Your task to perform on an android device: Show me the alarms in the clock app Image 0: 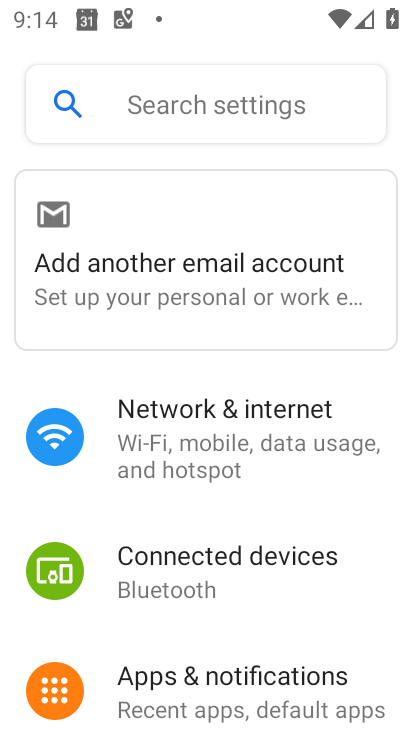
Step 0: press back button
Your task to perform on an android device: Show me the alarms in the clock app Image 1: 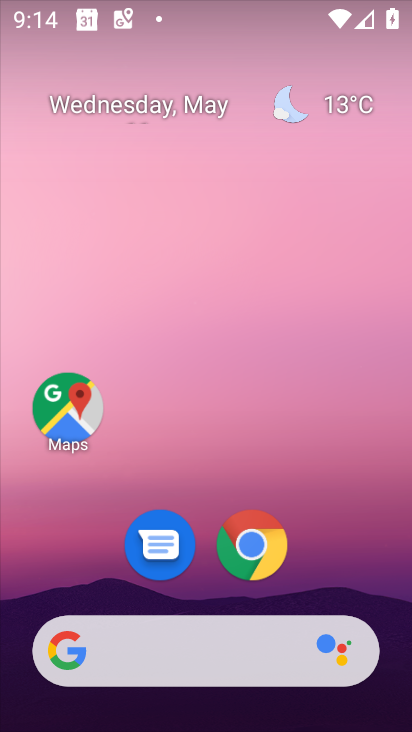
Step 1: drag from (340, 544) to (233, 20)
Your task to perform on an android device: Show me the alarms in the clock app Image 2: 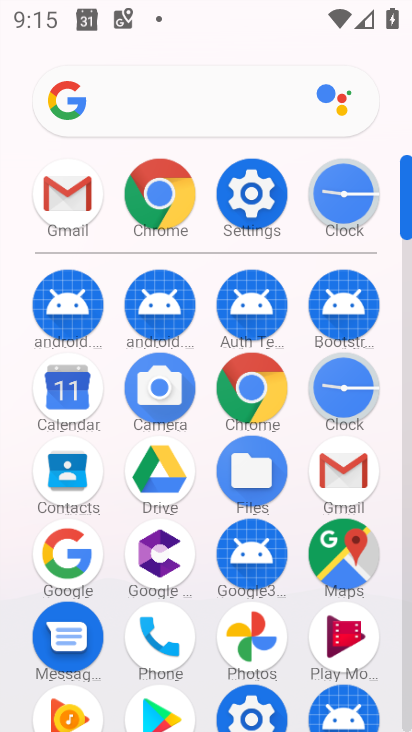
Step 2: click (343, 192)
Your task to perform on an android device: Show me the alarms in the clock app Image 3: 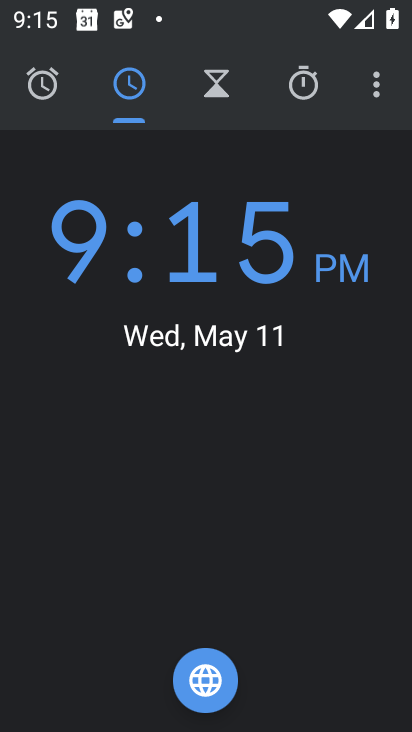
Step 3: click (43, 80)
Your task to perform on an android device: Show me the alarms in the clock app Image 4: 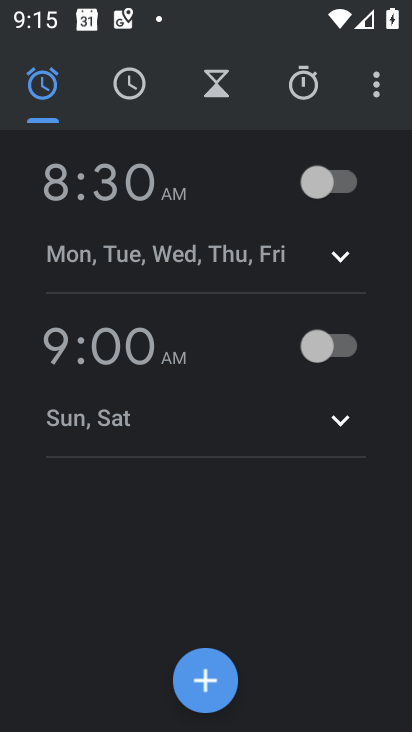
Step 4: click (208, 667)
Your task to perform on an android device: Show me the alarms in the clock app Image 5: 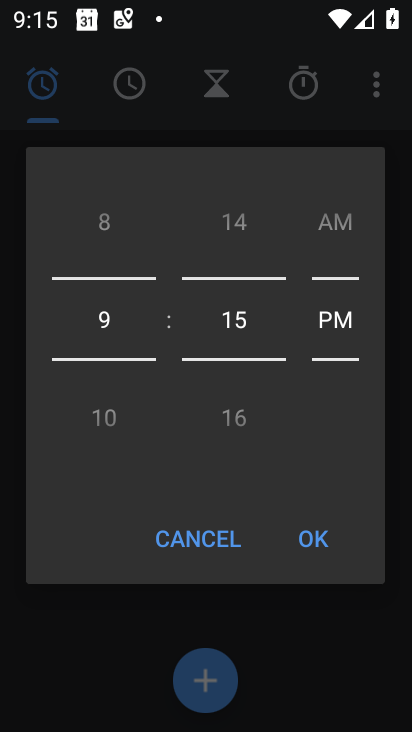
Step 5: drag from (105, 409) to (125, 193)
Your task to perform on an android device: Show me the alarms in the clock app Image 6: 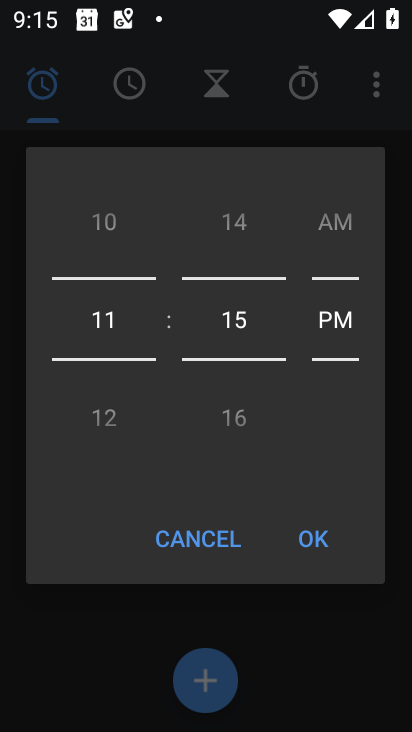
Step 6: click (318, 531)
Your task to perform on an android device: Show me the alarms in the clock app Image 7: 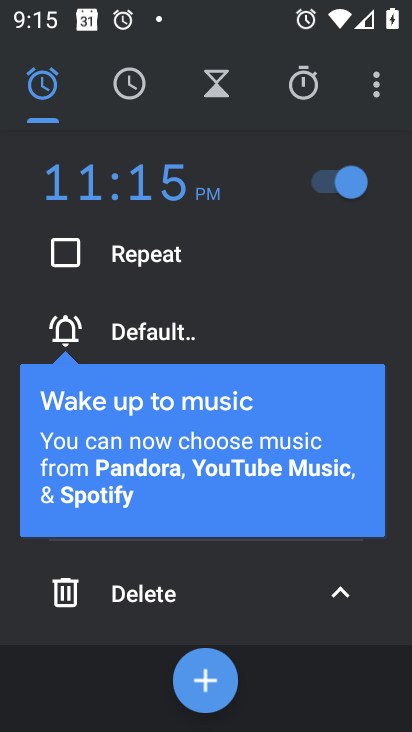
Step 7: task complete